Your task to perform on an android device: What is the capital of Argentina? Image 0: 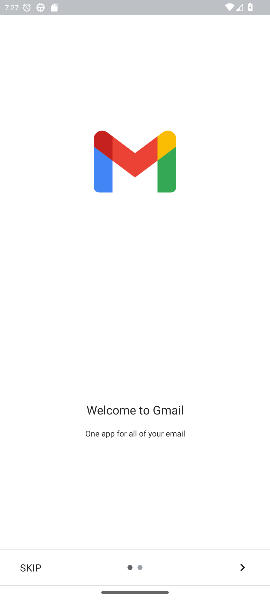
Step 0: press home button
Your task to perform on an android device: What is the capital of Argentina? Image 1: 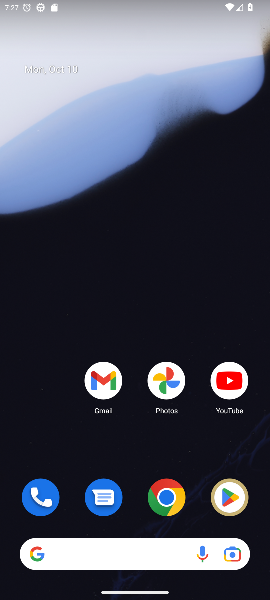
Step 1: drag from (98, 453) to (95, 156)
Your task to perform on an android device: What is the capital of Argentina? Image 2: 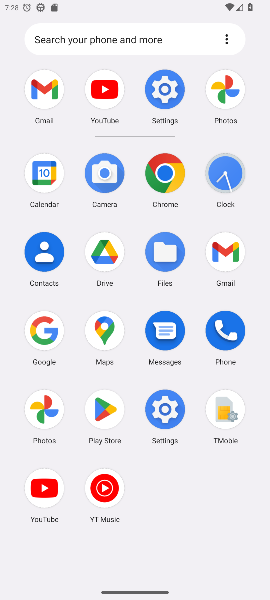
Step 2: click (35, 329)
Your task to perform on an android device: What is the capital of Argentina? Image 3: 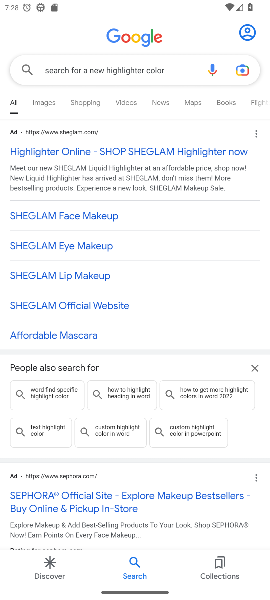
Step 3: click (166, 73)
Your task to perform on an android device: What is the capital of Argentina? Image 4: 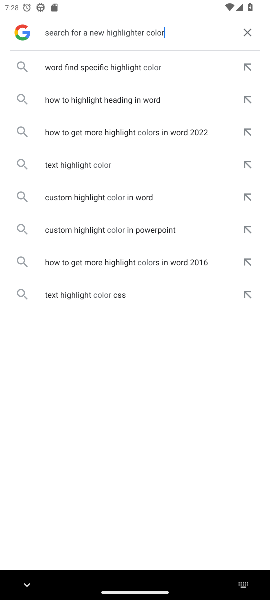
Step 4: click (253, 28)
Your task to perform on an android device: What is the capital of Argentina? Image 5: 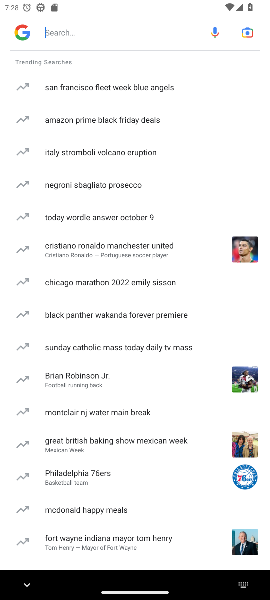
Step 5: click (102, 30)
Your task to perform on an android device: What is the capital of Argentina? Image 6: 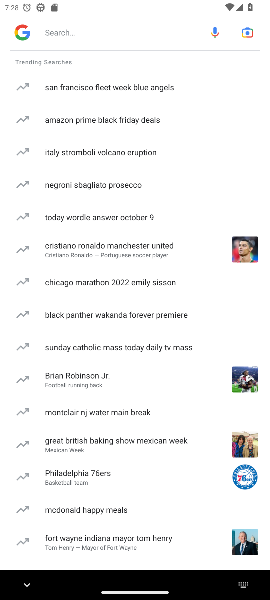
Step 6: type "What is the capital of Argentina? "
Your task to perform on an android device: What is the capital of Argentina? Image 7: 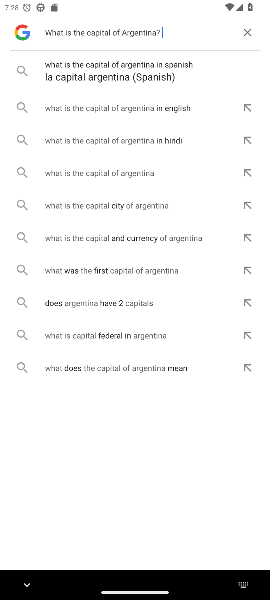
Step 7: click (93, 64)
Your task to perform on an android device: What is the capital of Argentina? Image 8: 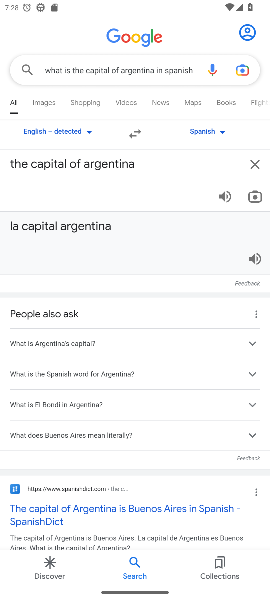
Step 8: click (86, 343)
Your task to perform on an android device: What is the capital of Argentina? Image 9: 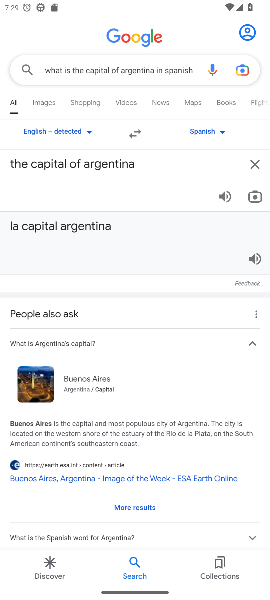
Step 9: task complete